Your task to perform on an android device: open wifi settings Image 0: 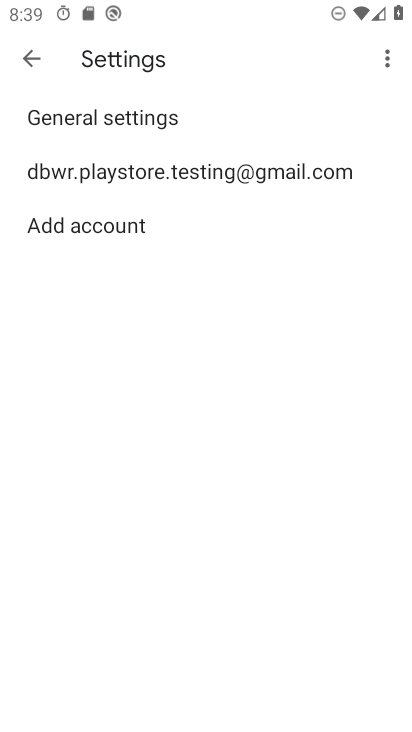
Step 0: press back button
Your task to perform on an android device: open wifi settings Image 1: 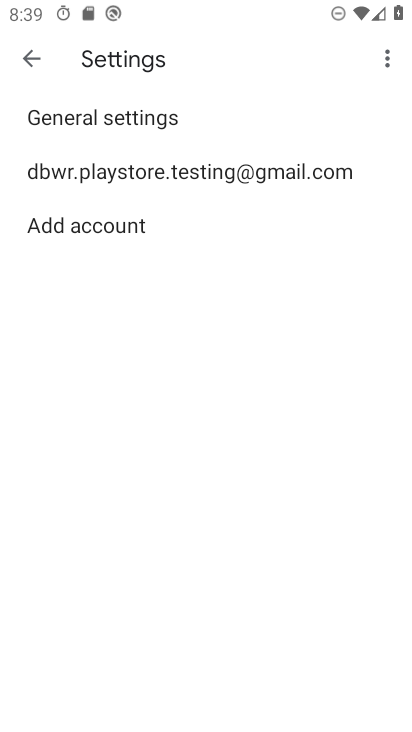
Step 1: press home button
Your task to perform on an android device: open wifi settings Image 2: 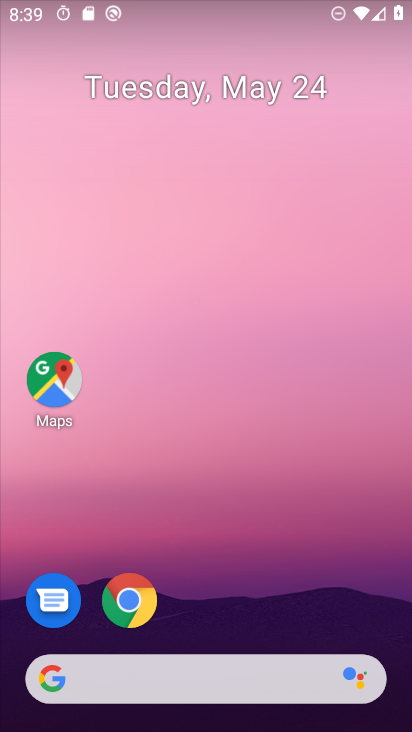
Step 2: drag from (80, 12) to (64, 405)
Your task to perform on an android device: open wifi settings Image 3: 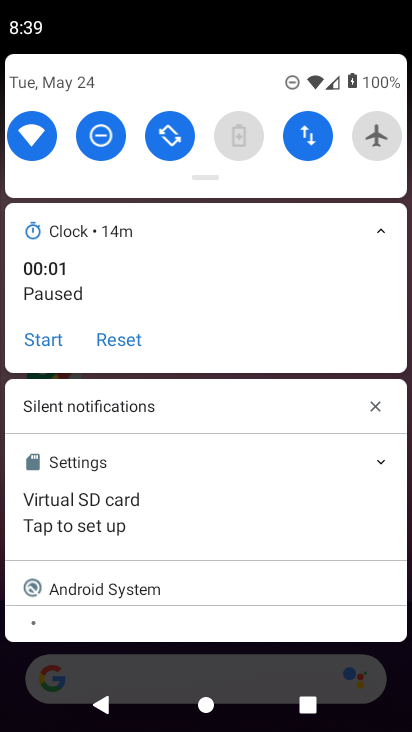
Step 3: click (27, 136)
Your task to perform on an android device: open wifi settings Image 4: 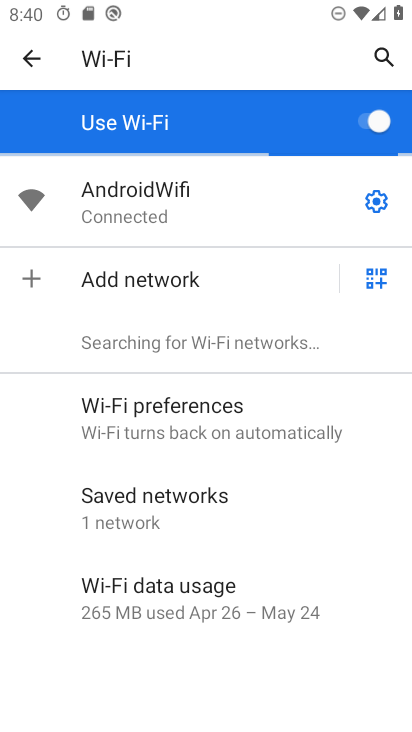
Step 4: task complete